Your task to perform on an android device: What is the recent news? Image 0: 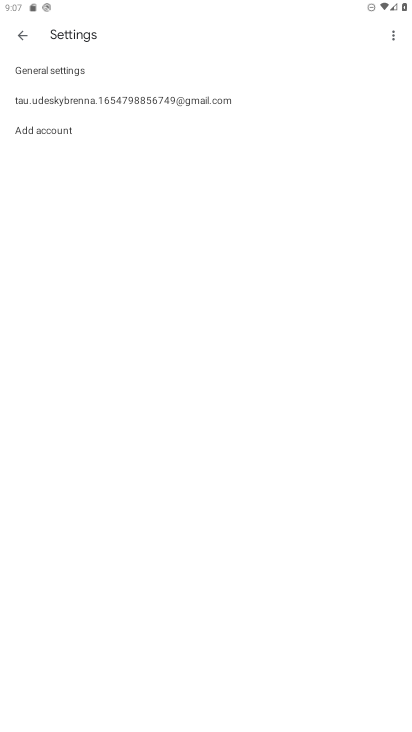
Step 0: press home button
Your task to perform on an android device: What is the recent news? Image 1: 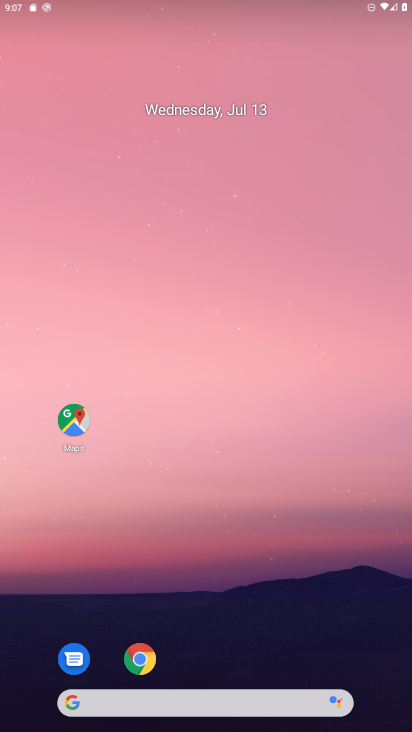
Step 1: drag from (234, 662) to (270, 56)
Your task to perform on an android device: What is the recent news? Image 2: 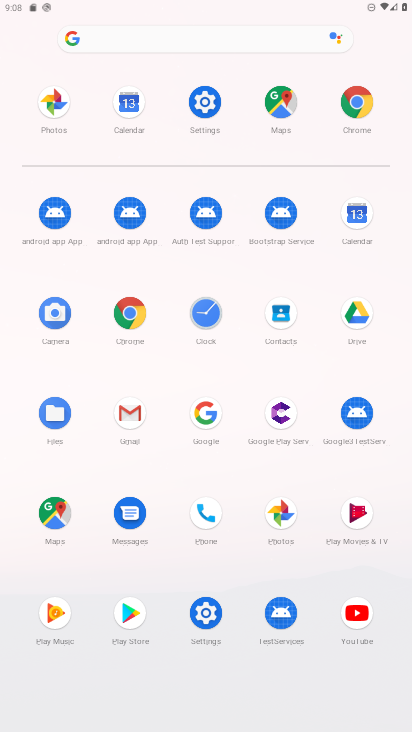
Step 2: click (210, 414)
Your task to perform on an android device: What is the recent news? Image 3: 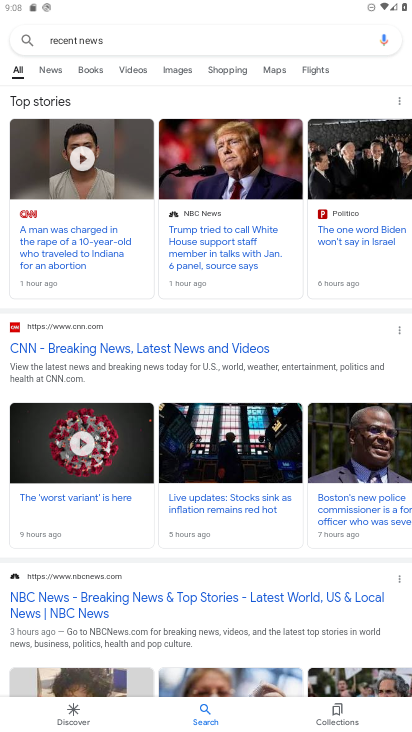
Step 3: task complete